Your task to perform on an android device: Go to calendar. Show me events next week Image 0: 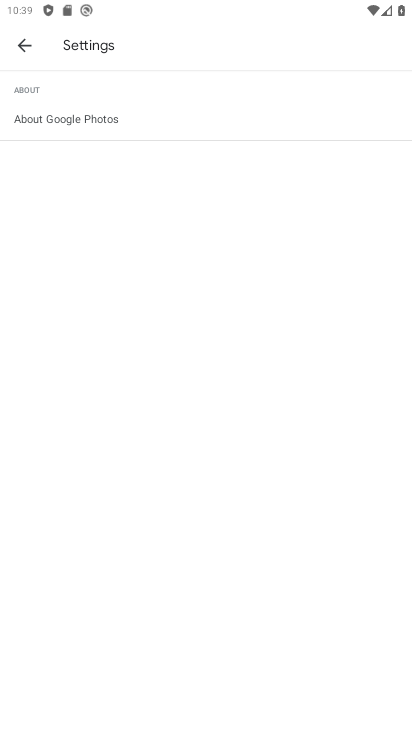
Step 0: press back button
Your task to perform on an android device: Go to calendar. Show me events next week Image 1: 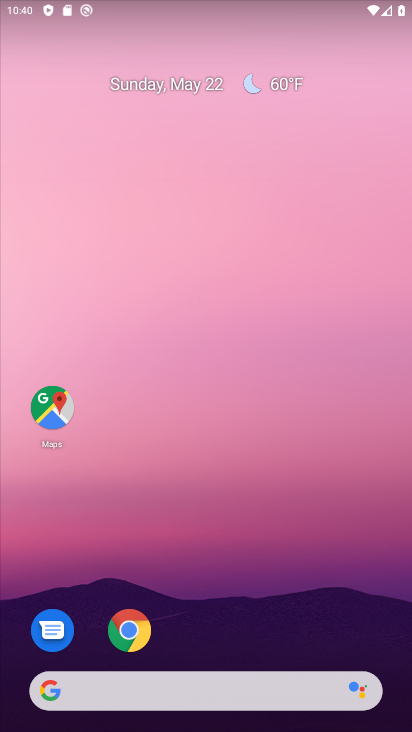
Step 1: drag from (255, 628) to (140, 128)
Your task to perform on an android device: Go to calendar. Show me events next week Image 2: 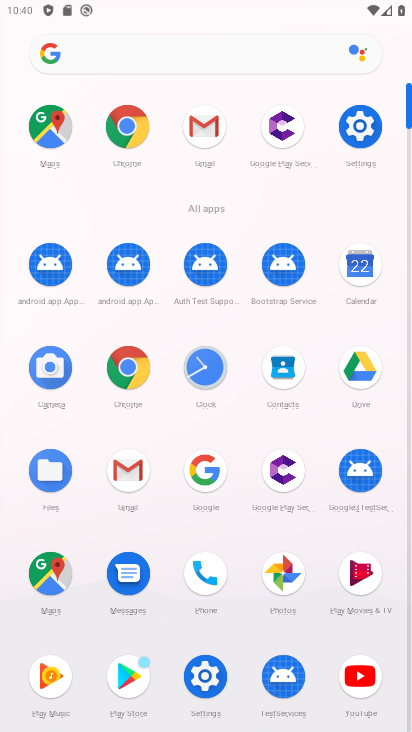
Step 2: click (360, 264)
Your task to perform on an android device: Go to calendar. Show me events next week Image 3: 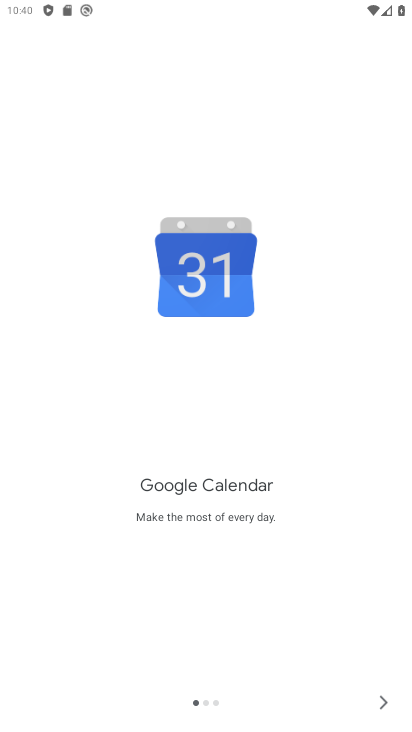
Step 3: click (383, 702)
Your task to perform on an android device: Go to calendar. Show me events next week Image 4: 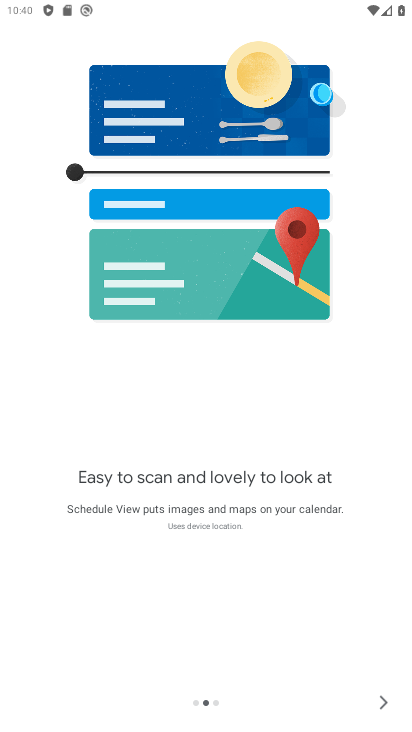
Step 4: click (383, 702)
Your task to perform on an android device: Go to calendar. Show me events next week Image 5: 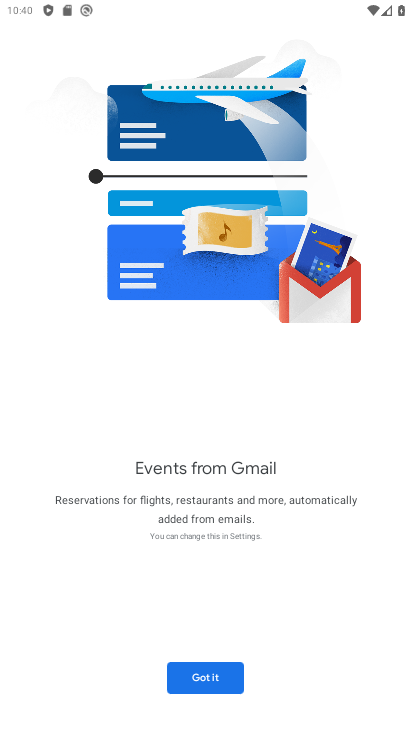
Step 5: click (206, 676)
Your task to perform on an android device: Go to calendar. Show me events next week Image 6: 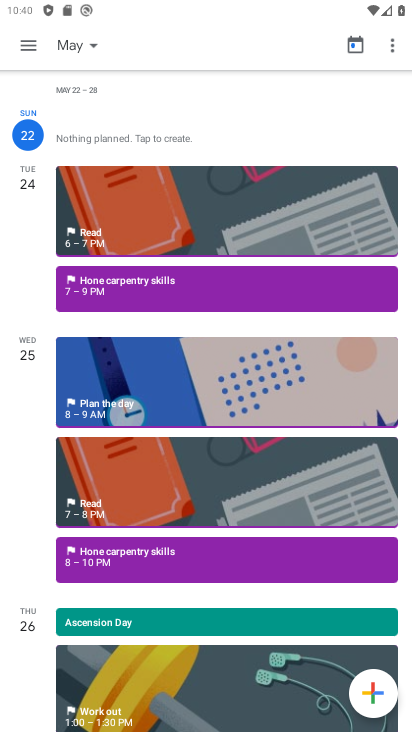
Step 6: click (95, 44)
Your task to perform on an android device: Go to calendar. Show me events next week Image 7: 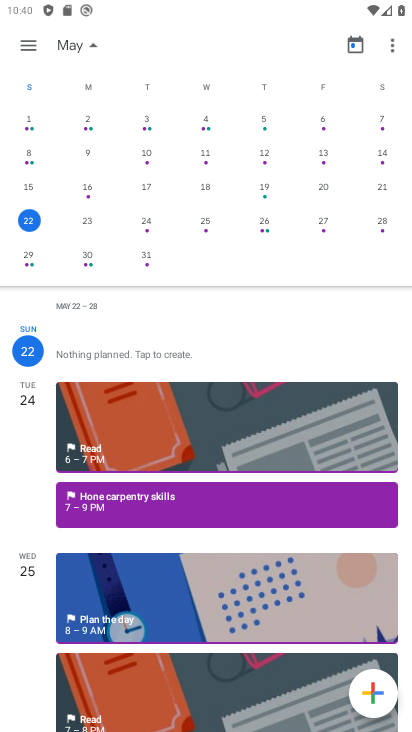
Step 7: click (94, 261)
Your task to perform on an android device: Go to calendar. Show me events next week Image 8: 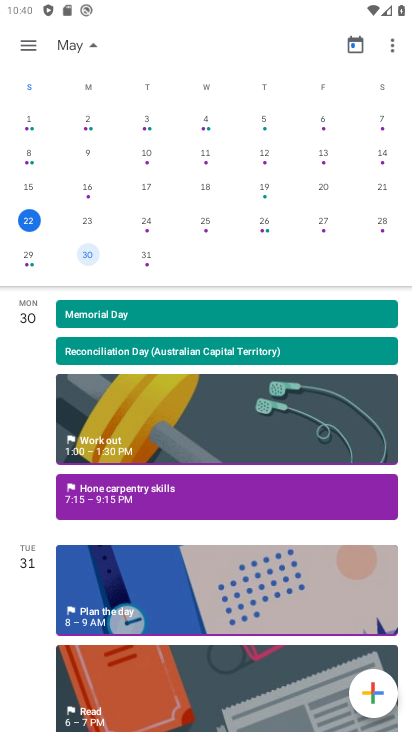
Step 8: click (29, 39)
Your task to perform on an android device: Go to calendar. Show me events next week Image 9: 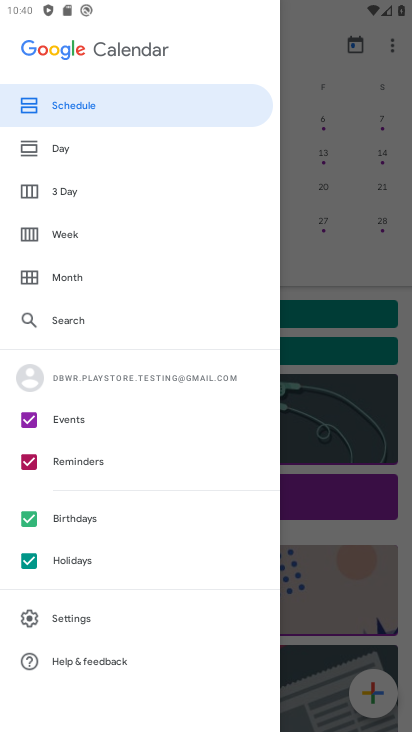
Step 9: click (72, 228)
Your task to perform on an android device: Go to calendar. Show me events next week Image 10: 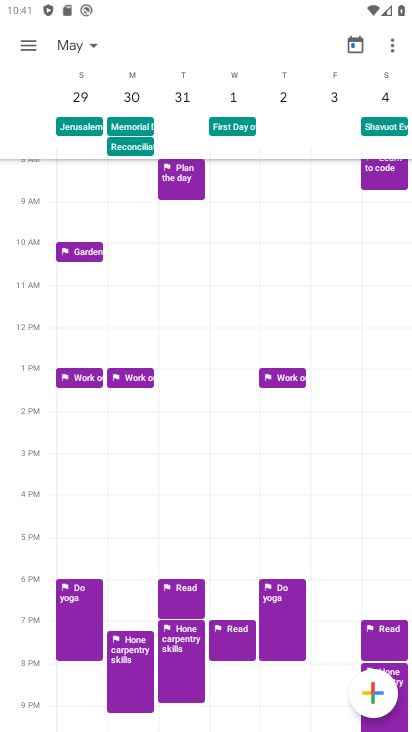
Step 10: task complete